Your task to perform on an android device: open app "VLC for Android" Image 0: 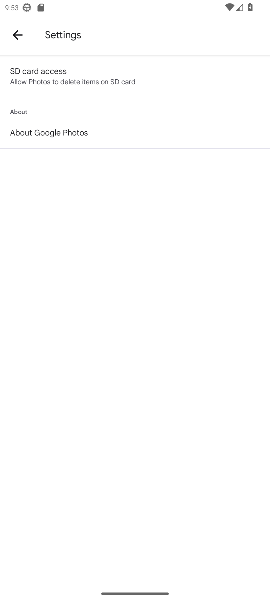
Step 0: press home button
Your task to perform on an android device: open app "VLC for Android" Image 1: 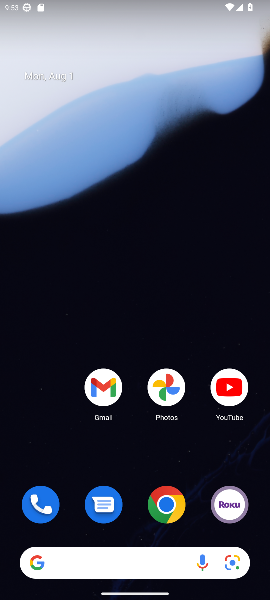
Step 1: drag from (75, 436) to (172, 6)
Your task to perform on an android device: open app "VLC for Android" Image 2: 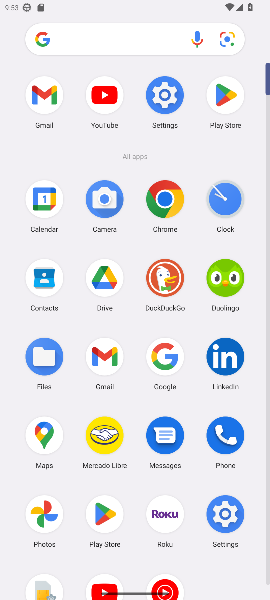
Step 2: click (233, 87)
Your task to perform on an android device: open app "VLC for Android" Image 3: 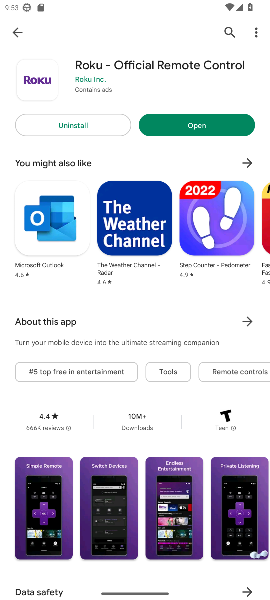
Step 3: click (227, 35)
Your task to perform on an android device: open app "VLC for Android" Image 4: 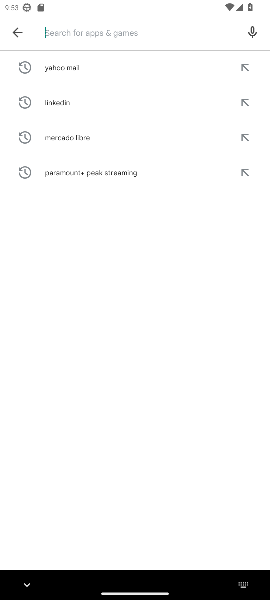
Step 4: type "VLC for android"
Your task to perform on an android device: open app "VLC for Android" Image 5: 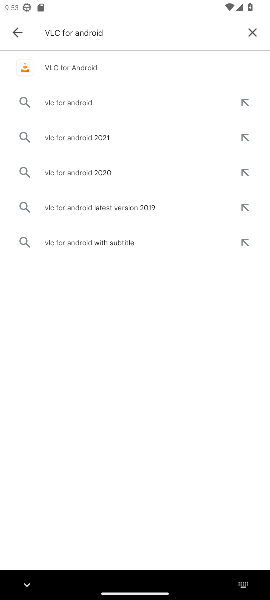
Step 5: click (90, 71)
Your task to perform on an android device: open app "VLC for Android" Image 6: 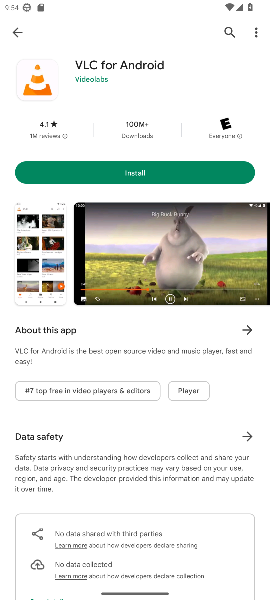
Step 6: task complete